Your task to perform on an android device: Open calendar and show me the first week of next month Image 0: 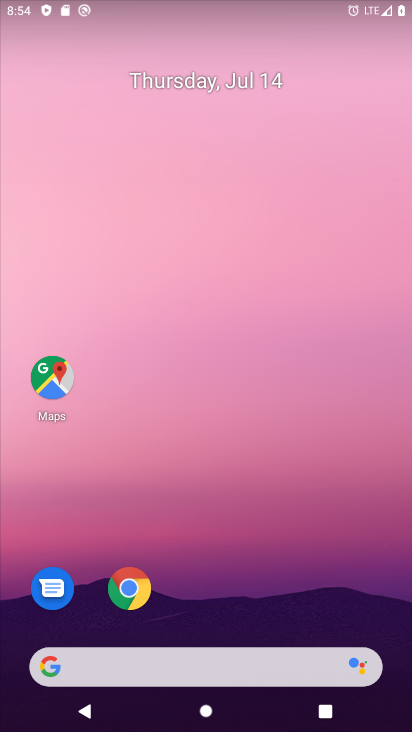
Step 0: drag from (343, 610) to (232, 11)
Your task to perform on an android device: Open calendar and show me the first week of next month Image 1: 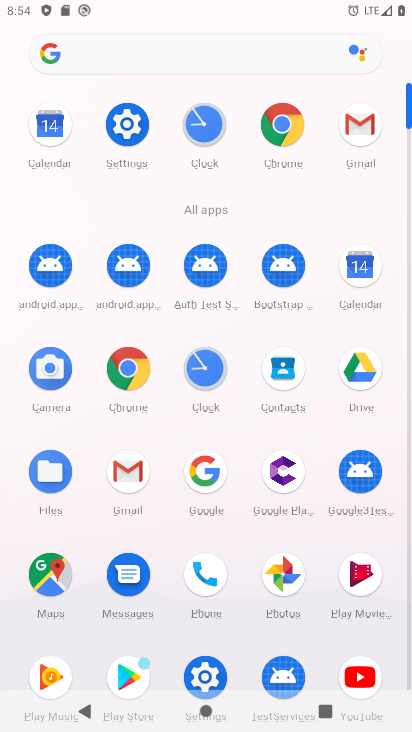
Step 1: click (354, 278)
Your task to perform on an android device: Open calendar and show me the first week of next month Image 2: 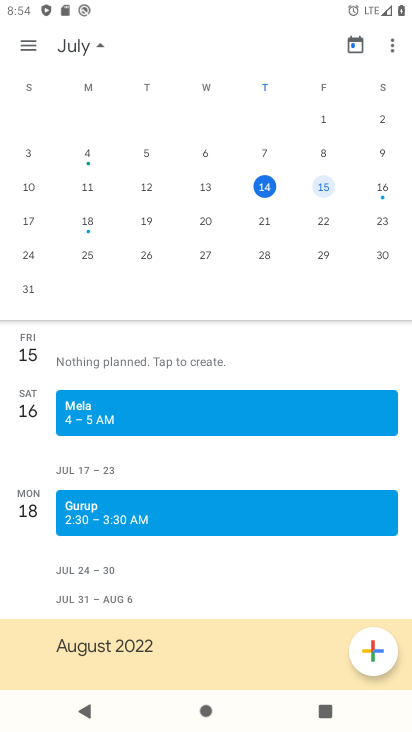
Step 2: drag from (395, 246) to (14, 203)
Your task to perform on an android device: Open calendar and show me the first week of next month Image 3: 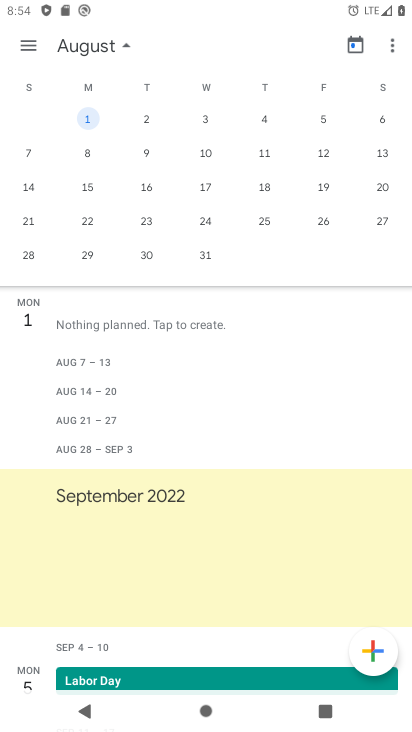
Step 3: click (387, 125)
Your task to perform on an android device: Open calendar and show me the first week of next month Image 4: 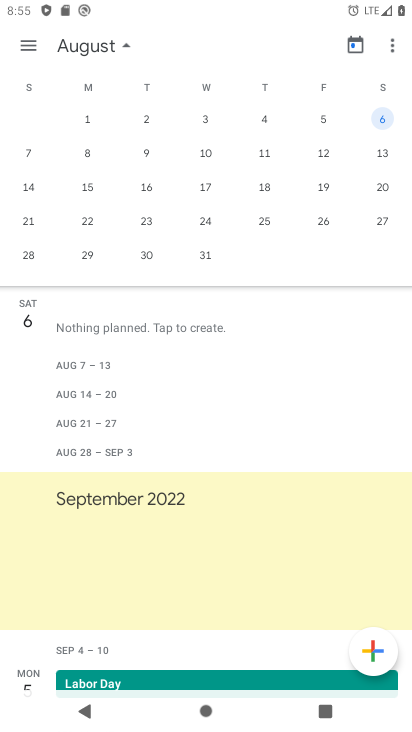
Step 4: task complete